Your task to perform on an android device: set default search engine in the chrome app Image 0: 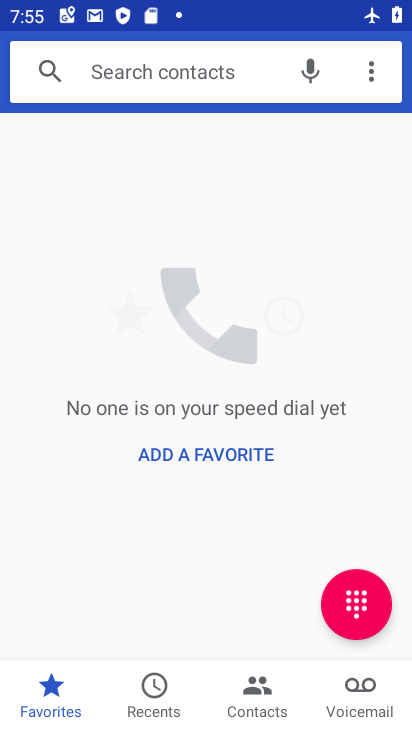
Step 0: press home button
Your task to perform on an android device: set default search engine in the chrome app Image 1: 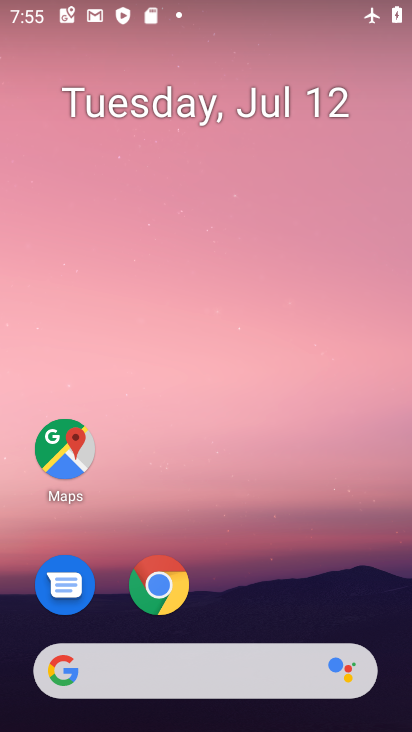
Step 1: click (163, 591)
Your task to perform on an android device: set default search engine in the chrome app Image 2: 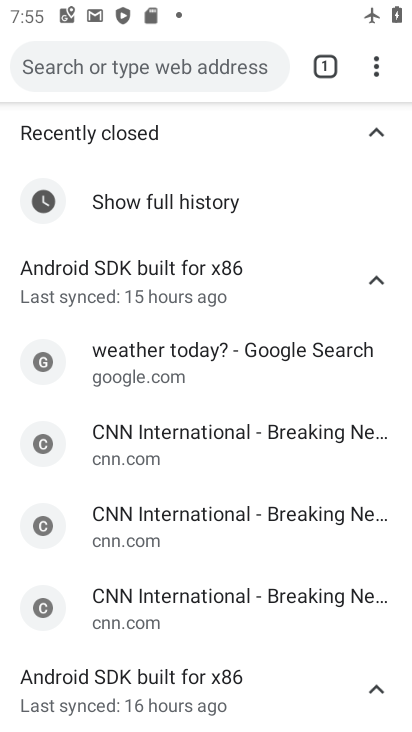
Step 2: click (379, 62)
Your task to perform on an android device: set default search engine in the chrome app Image 3: 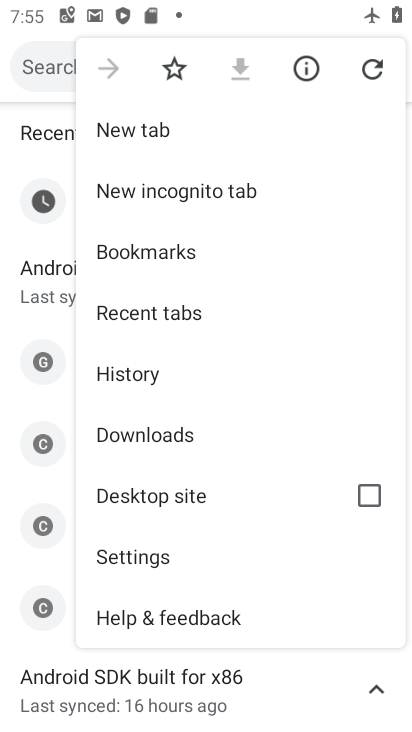
Step 3: click (155, 558)
Your task to perform on an android device: set default search engine in the chrome app Image 4: 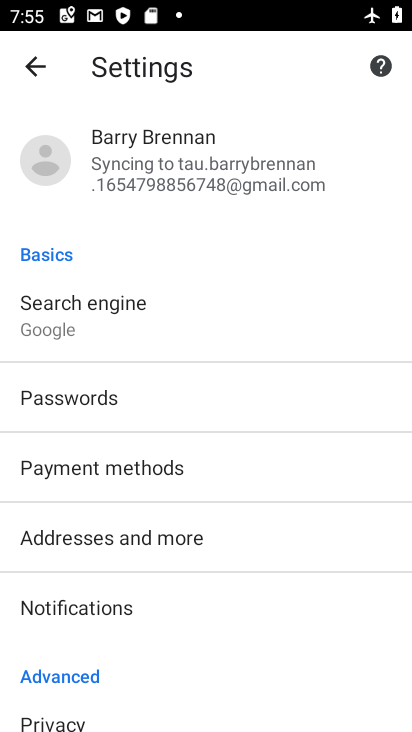
Step 4: click (107, 332)
Your task to perform on an android device: set default search engine in the chrome app Image 5: 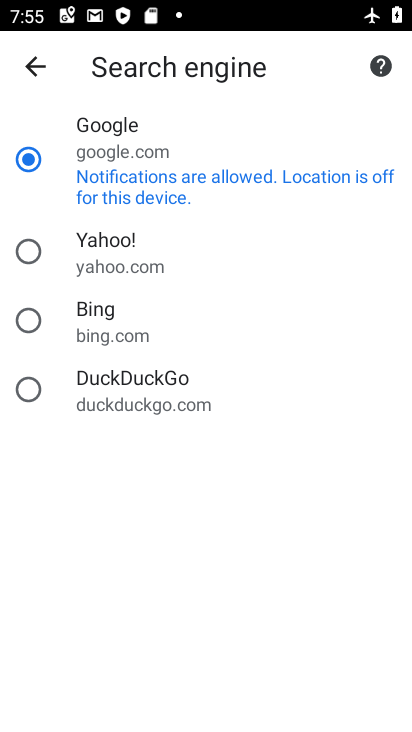
Step 5: task complete